Your task to perform on an android device: turn on bluetooth scan Image 0: 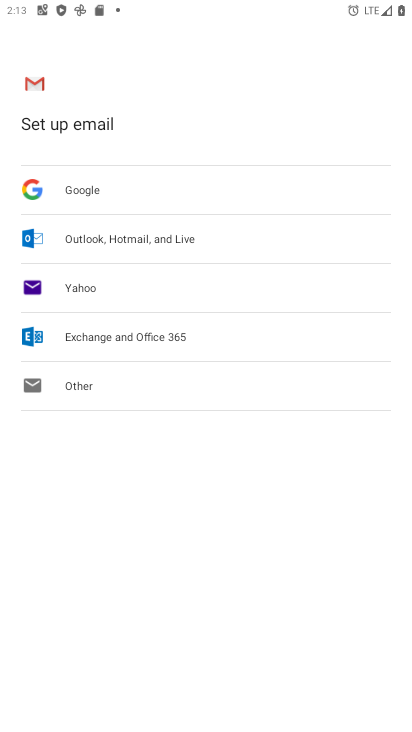
Step 0: press home button
Your task to perform on an android device: turn on bluetooth scan Image 1: 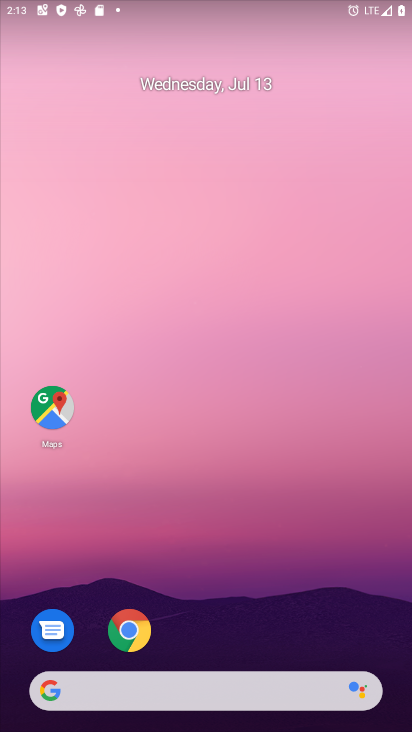
Step 1: drag from (403, 689) to (258, 4)
Your task to perform on an android device: turn on bluetooth scan Image 2: 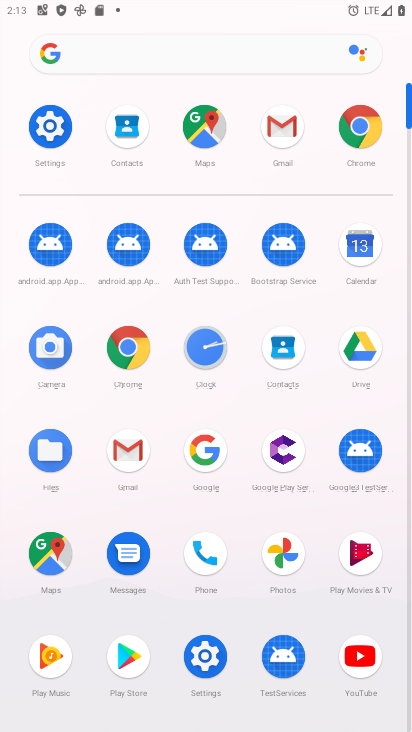
Step 2: click (40, 130)
Your task to perform on an android device: turn on bluetooth scan Image 3: 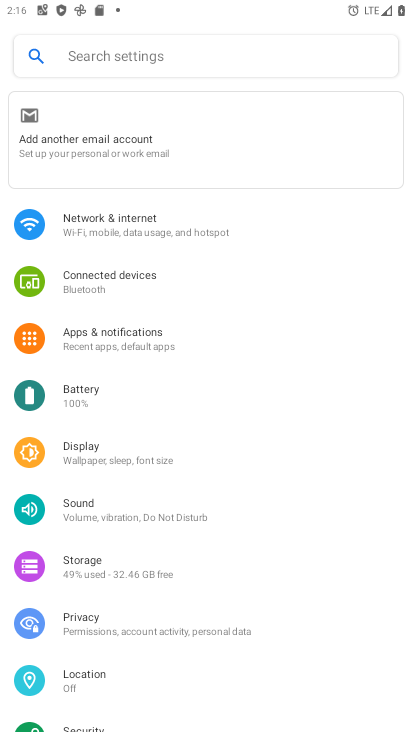
Step 3: click (111, 671)
Your task to perform on an android device: turn on bluetooth scan Image 4: 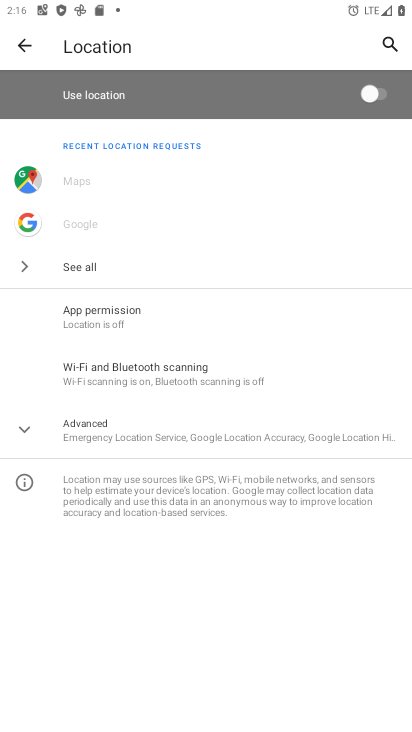
Step 4: click (167, 383)
Your task to perform on an android device: turn on bluetooth scan Image 5: 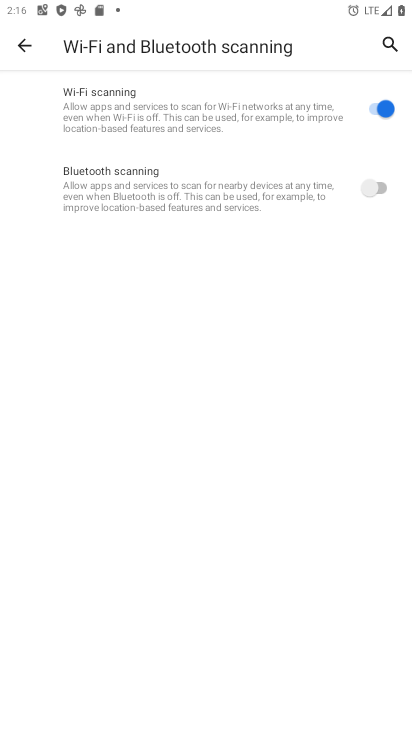
Step 5: click (339, 205)
Your task to perform on an android device: turn on bluetooth scan Image 6: 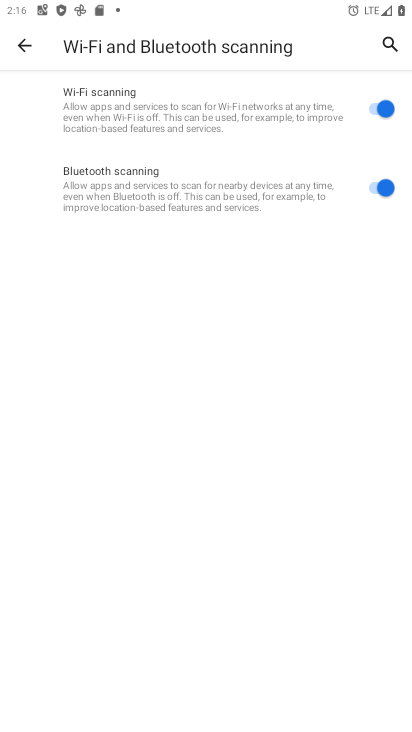
Step 6: task complete